Your task to perform on an android device: Open the calendar and show me this week's events Image 0: 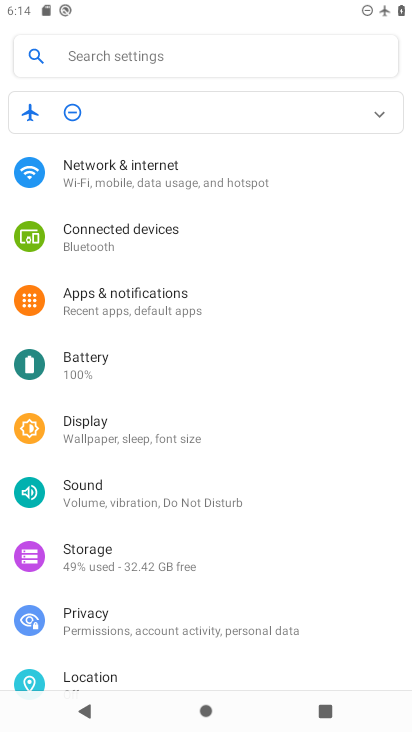
Step 0: press home button
Your task to perform on an android device: Open the calendar and show me this week's events Image 1: 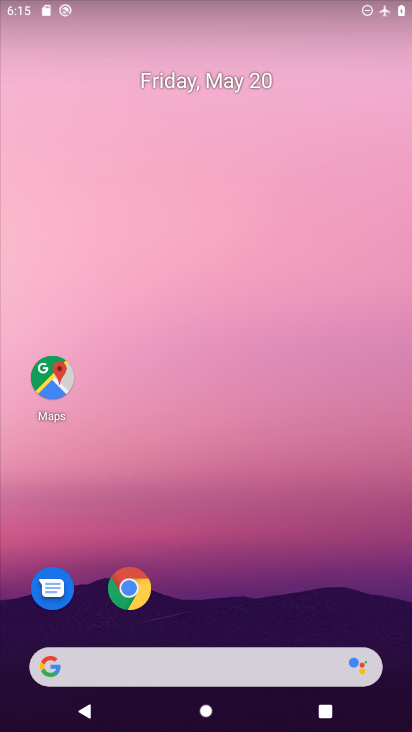
Step 1: drag from (208, 592) to (205, 122)
Your task to perform on an android device: Open the calendar and show me this week's events Image 2: 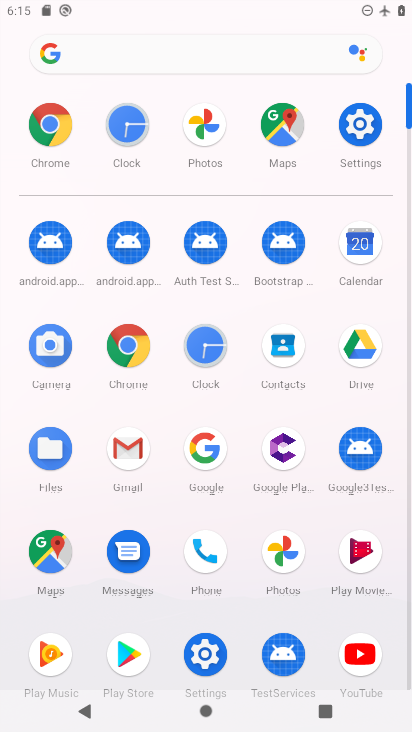
Step 2: click (369, 285)
Your task to perform on an android device: Open the calendar and show me this week's events Image 3: 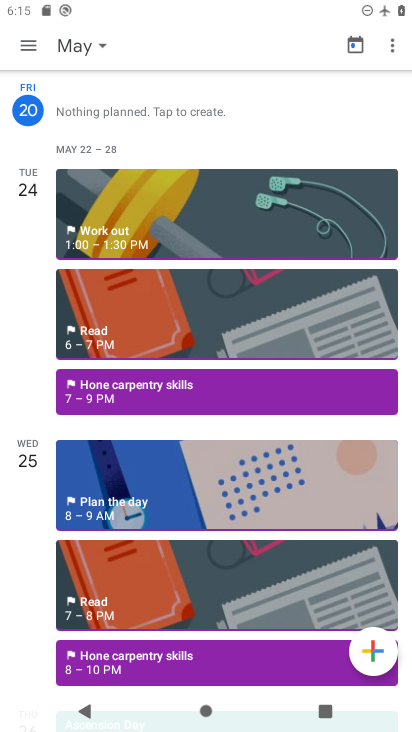
Step 3: click (36, 54)
Your task to perform on an android device: Open the calendar and show me this week's events Image 4: 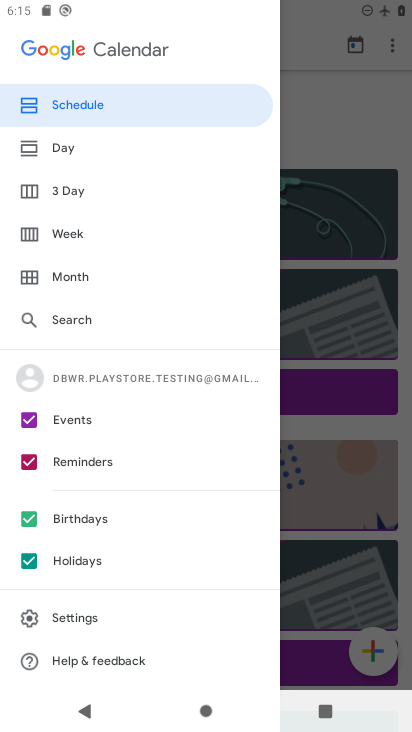
Step 4: click (77, 239)
Your task to perform on an android device: Open the calendar and show me this week's events Image 5: 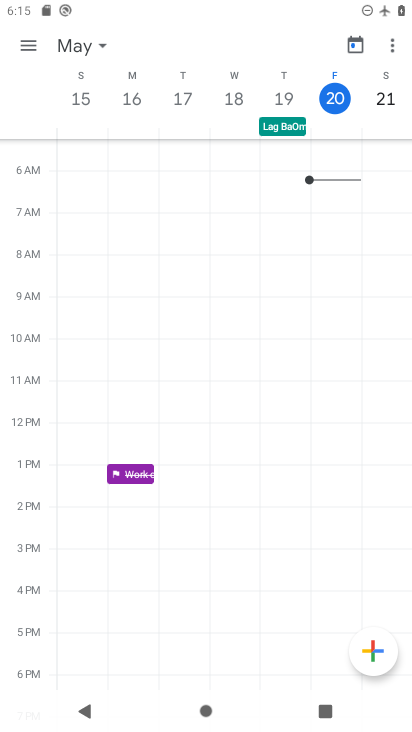
Step 5: click (70, 45)
Your task to perform on an android device: Open the calendar and show me this week's events Image 6: 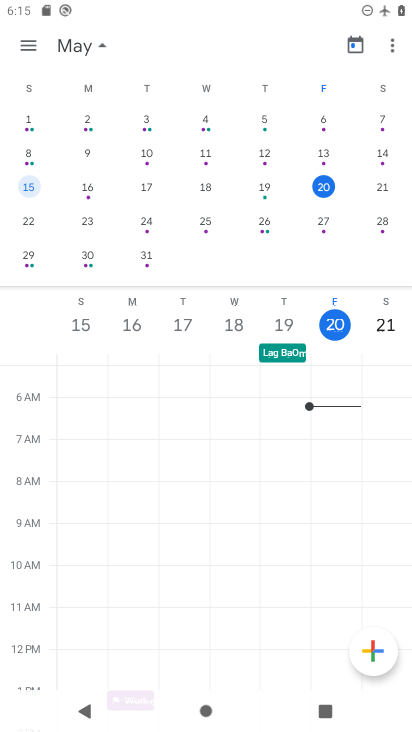
Step 6: task complete